Your task to perform on an android device: delete browsing data in the chrome app Image 0: 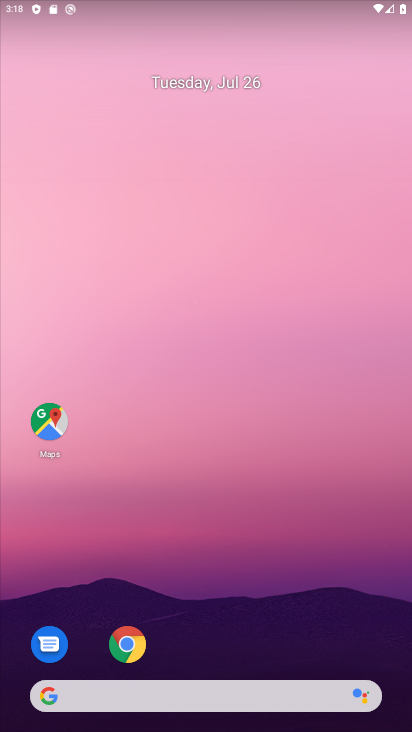
Step 0: click (197, 212)
Your task to perform on an android device: delete browsing data in the chrome app Image 1: 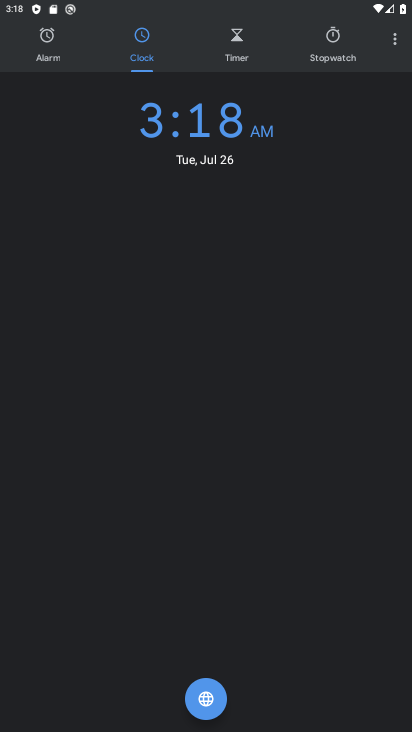
Step 1: drag from (281, 569) to (235, 275)
Your task to perform on an android device: delete browsing data in the chrome app Image 2: 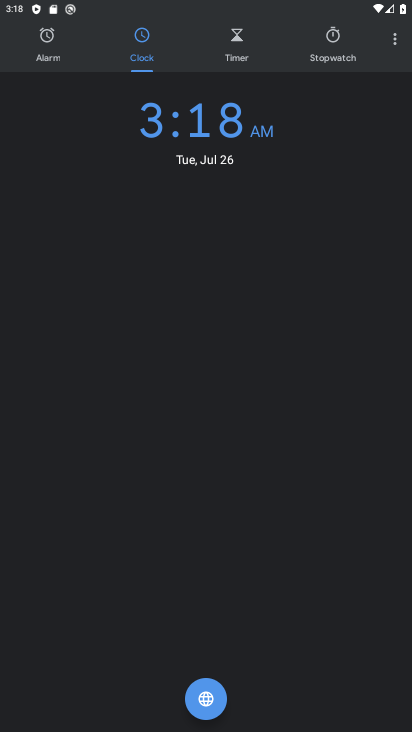
Step 2: press home button
Your task to perform on an android device: delete browsing data in the chrome app Image 3: 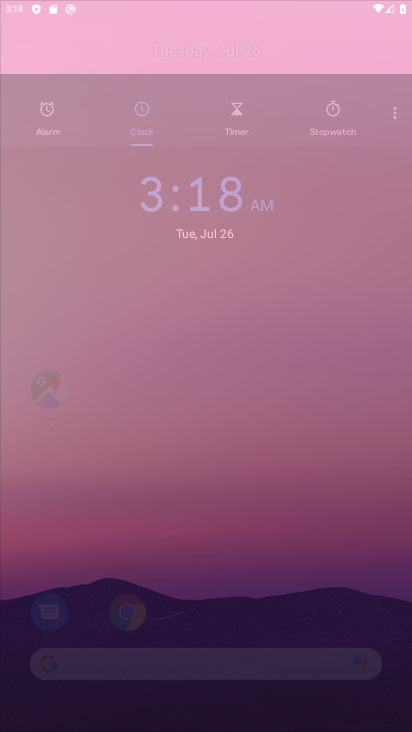
Step 3: drag from (237, 414) to (266, 120)
Your task to perform on an android device: delete browsing data in the chrome app Image 4: 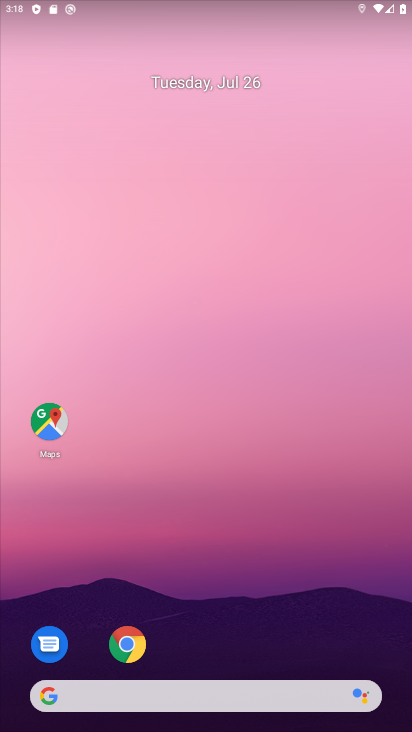
Step 4: click (133, 639)
Your task to perform on an android device: delete browsing data in the chrome app Image 5: 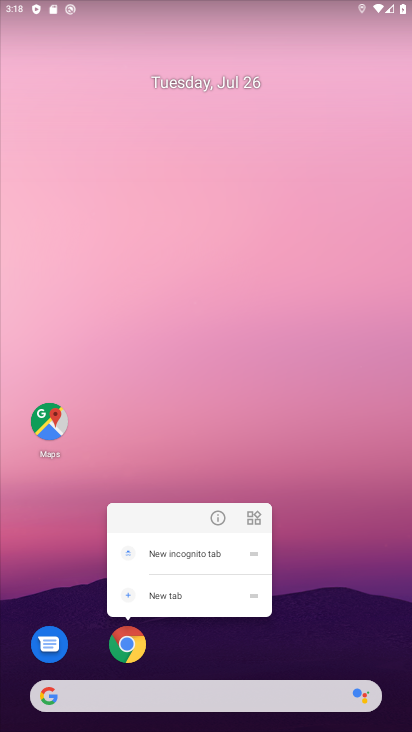
Step 5: click (226, 523)
Your task to perform on an android device: delete browsing data in the chrome app Image 6: 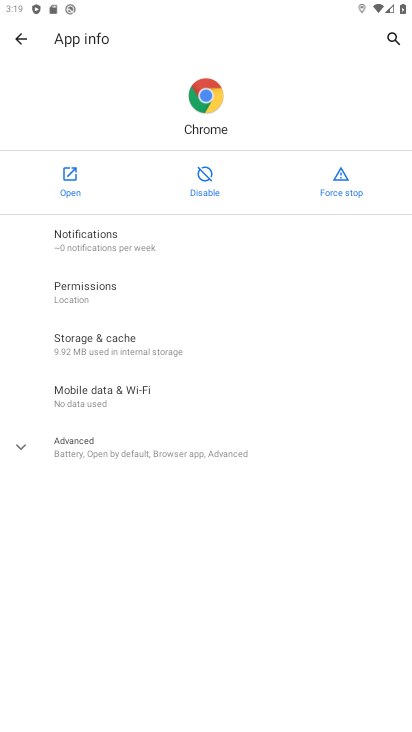
Step 6: click (70, 176)
Your task to perform on an android device: delete browsing data in the chrome app Image 7: 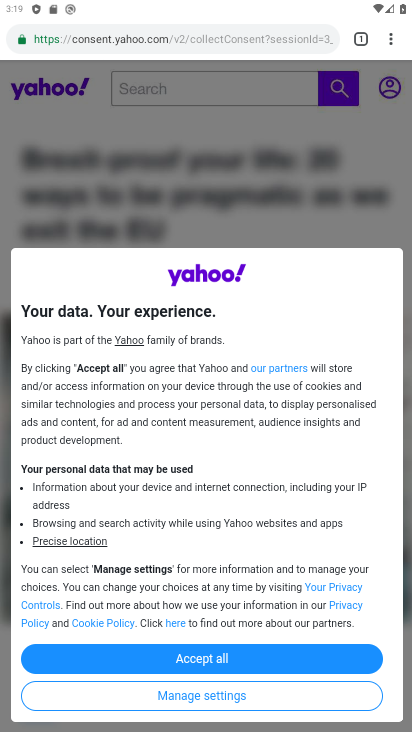
Step 7: drag from (388, 38) to (293, 218)
Your task to perform on an android device: delete browsing data in the chrome app Image 8: 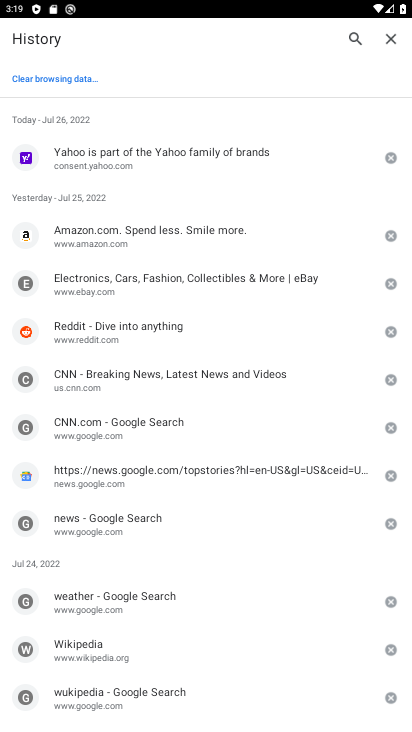
Step 8: click (28, 90)
Your task to perform on an android device: delete browsing data in the chrome app Image 9: 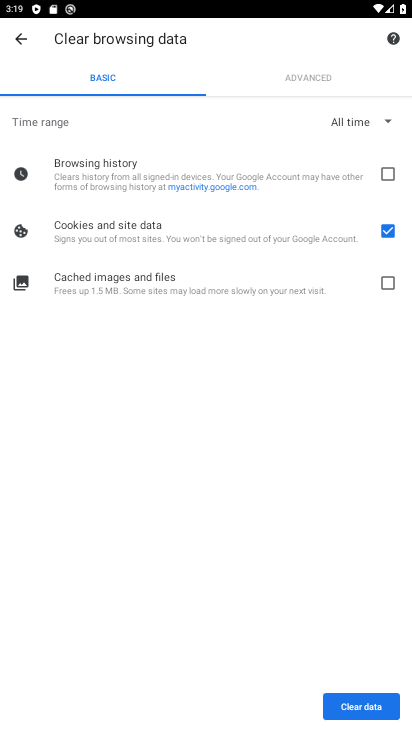
Step 9: click (378, 171)
Your task to perform on an android device: delete browsing data in the chrome app Image 10: 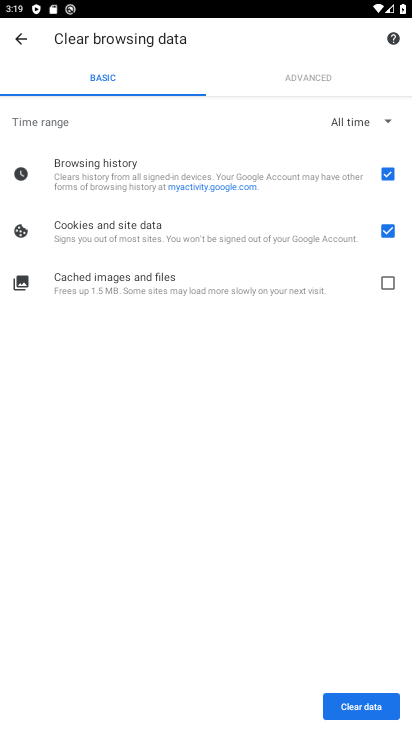
Step 10: click (384, 283)
Your task to perform on an android device: delete browsing data in the chrome app Image 11: 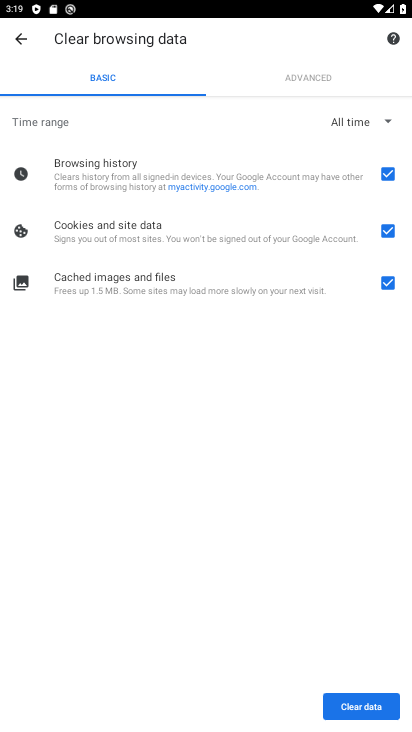
Step 11: click (349, 698)
Your task to perform on an android device: delete browsing data in the chrome app Image 12: 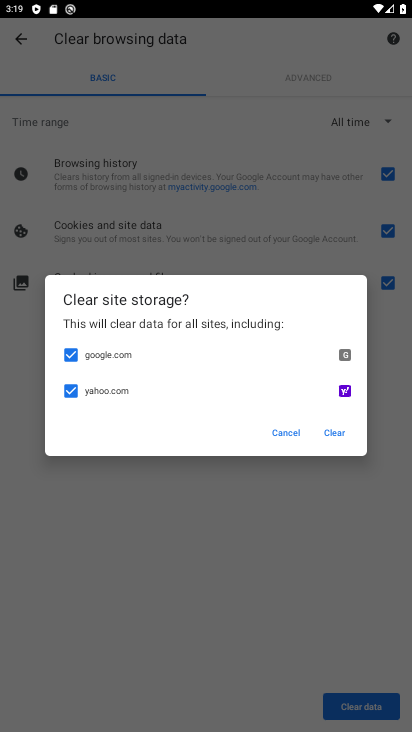
Step 12: click (337, 429)
Your task to perform on an android device: delete browsing data in the chrome app Image 13: 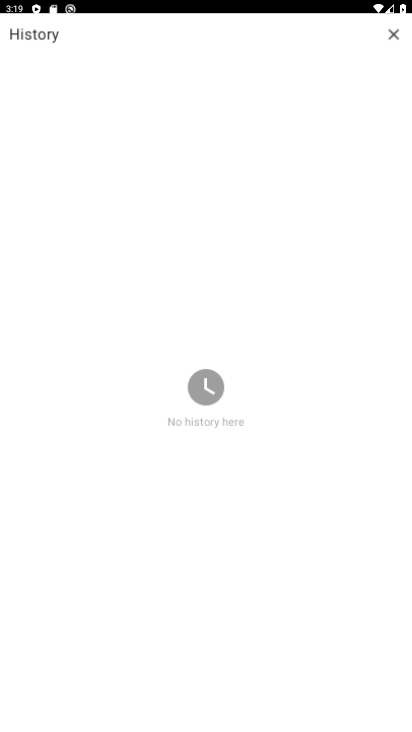
Step 13: task complete